Your task to perform on an android device: turn off picture-in-picture Image 0: 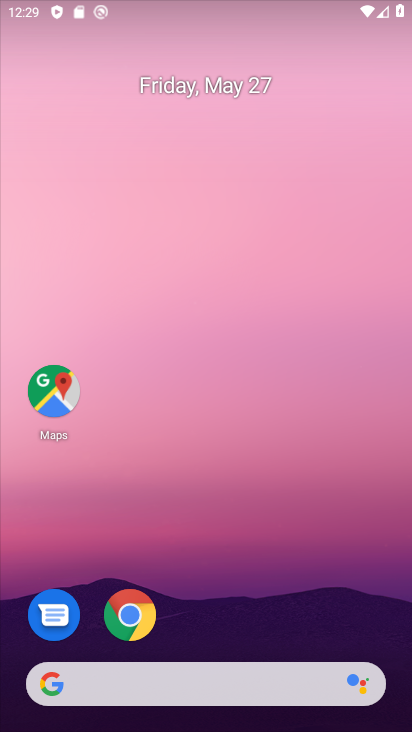
Step 0: press home button
Your task to perform on an android device: turn off picture-in-picture Image 1: 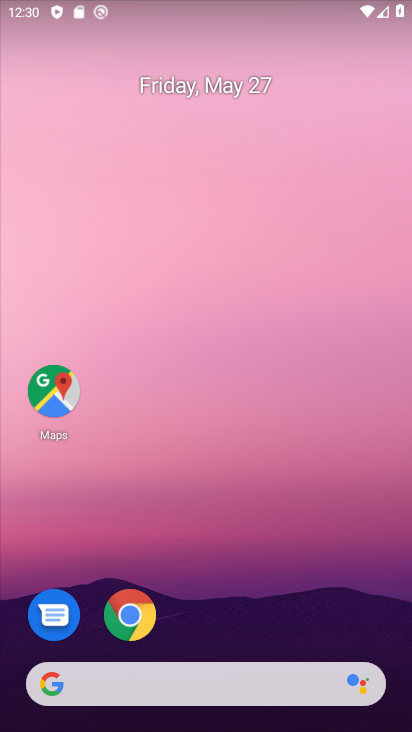
Step 1: click (136, 614)
Your task to perform on an android device: turn off picture-in-picture Image 2: 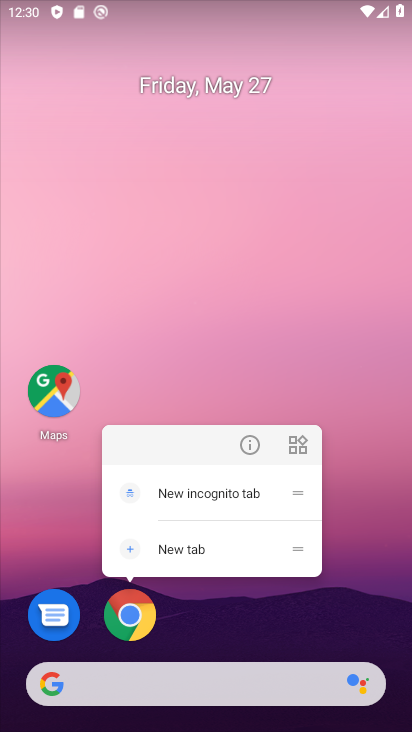
Step 2: click (254, 447)
Your task to perform on an android device: turn off picture-in-picture Image 3: 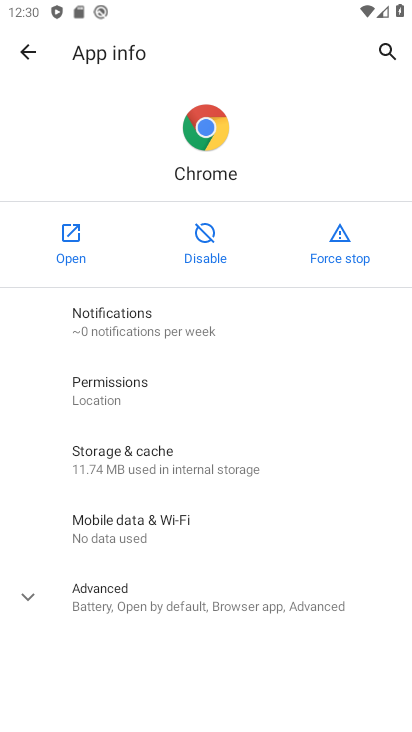
Step 3: click (95, 605)
Your task to perform on an android device: turn off picture-in-picture Image 4: 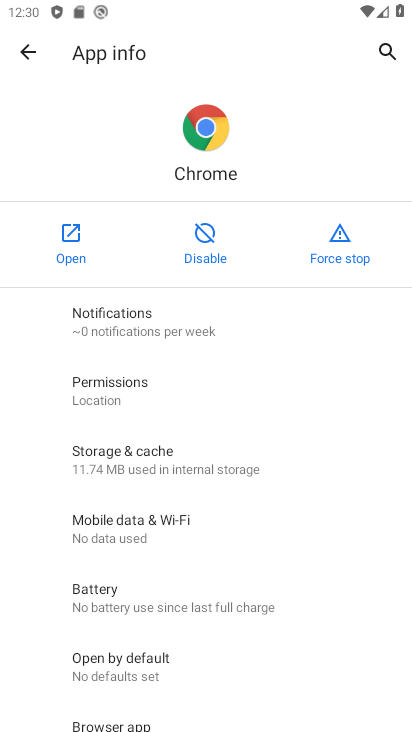
Step 4: drag from (383, 562) to (349, 244)
Your task to perform on an android device: turn off picture-in-picture Image 5: 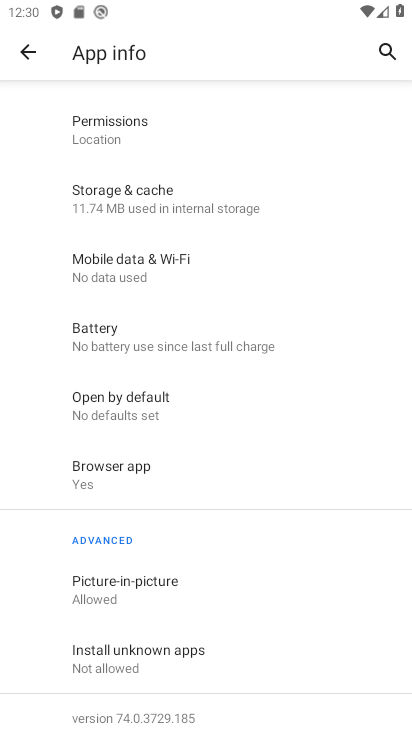
Step 5: click (132, 589)
Your task to perform on an android device: turn off picture-in-picture Image 6: 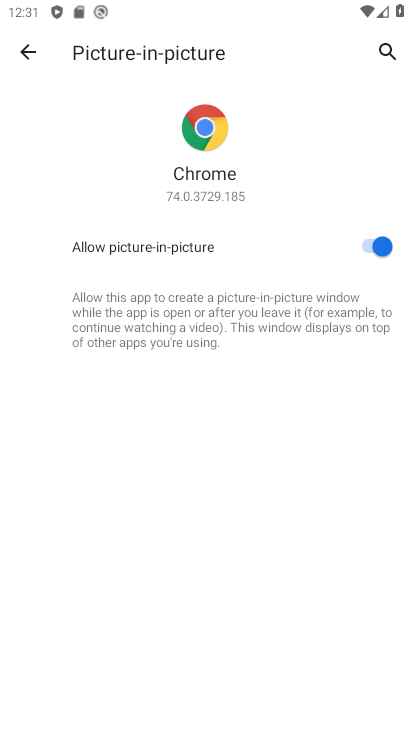
Step 6: click (384, 249)
Your task to perform on an android device: turn off picture-in-picture Image 7: 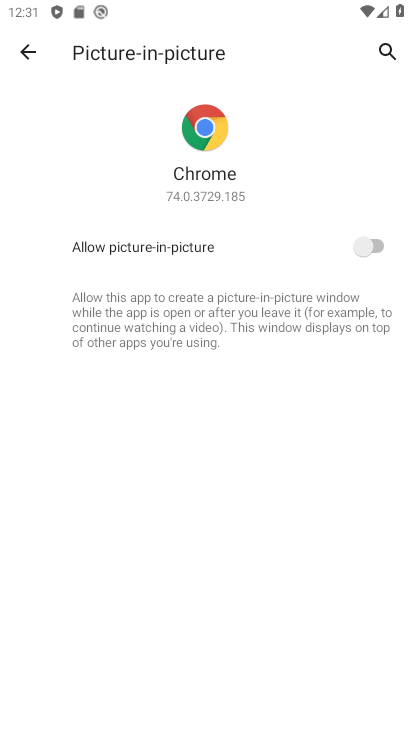
Step 7: task complete